Your task to perform on an android device: turn notification dots on Image 0: 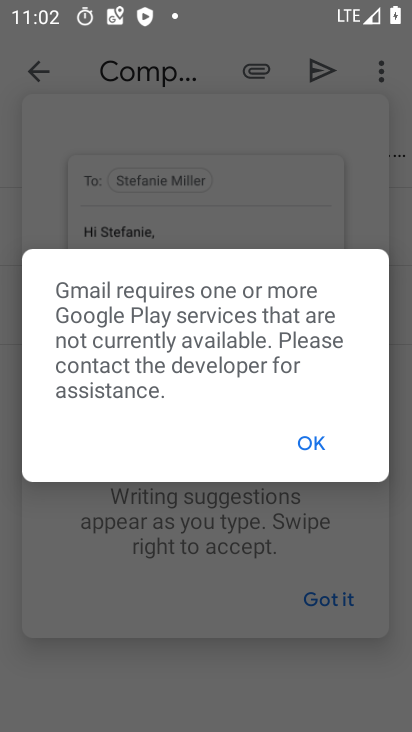
Step 0: press home button
Your task to perform on an android device: turn notification dots on Image 1: 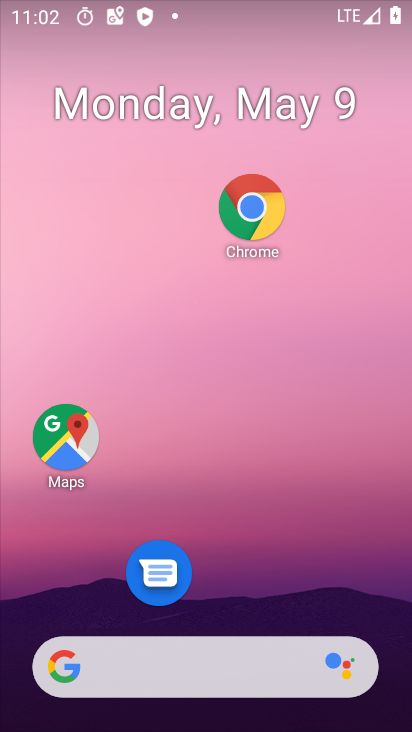
Step 1: drag from (315, 608) to (277, 114)
Your task to perform on an android device: turn notification dots on Image 2: 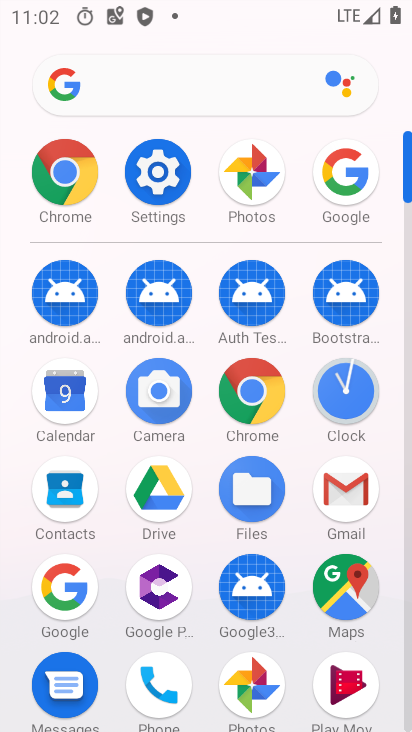
Step 2: click (164, 170)
Your task to perform on an android device: turn notification dots on Image 3: 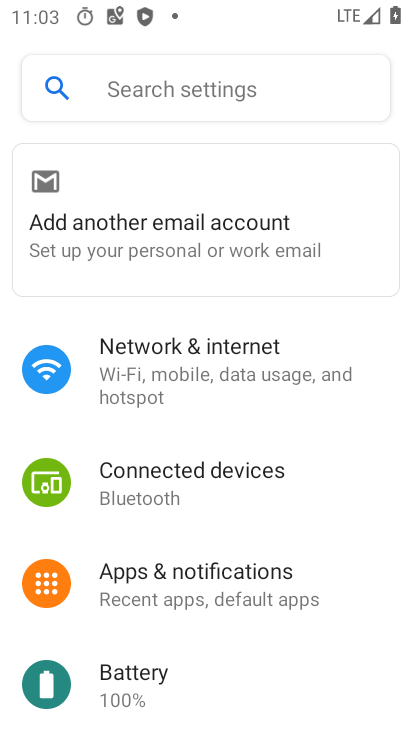
Step 3: drag from (251, 546) to (244, 383)
Your task to perform on an android device: turn notification dots on Image 4: 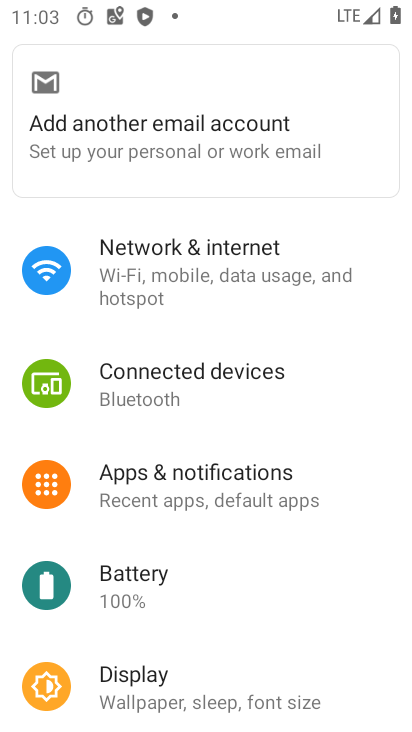
Step 4: click (207, 483)
Your task to perform on an android device: turn notification dots on Image 5: 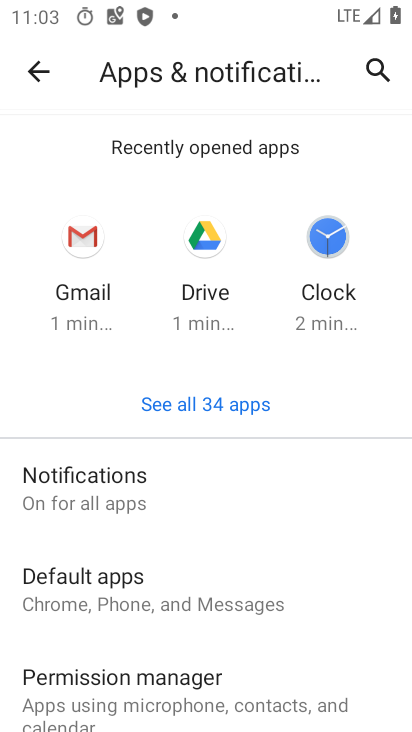
Step 5: drag from (251, 592) to (217, 205)
Your task to perform on an android device: turn notification dots on Image 6: 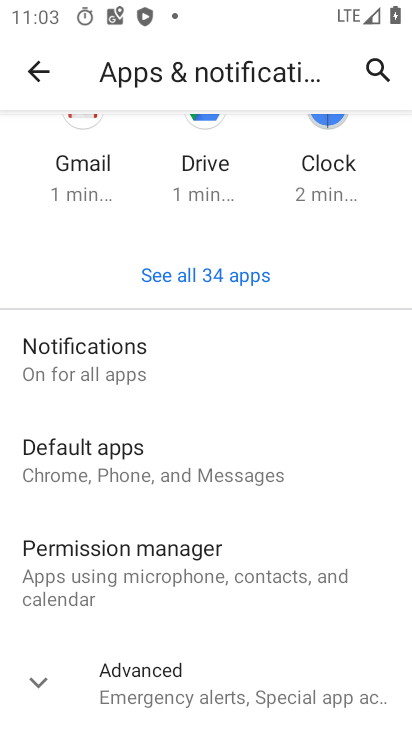
Step 6: click (208, 702)
Your task to perform on an android device: turn notification dots on Image 7: 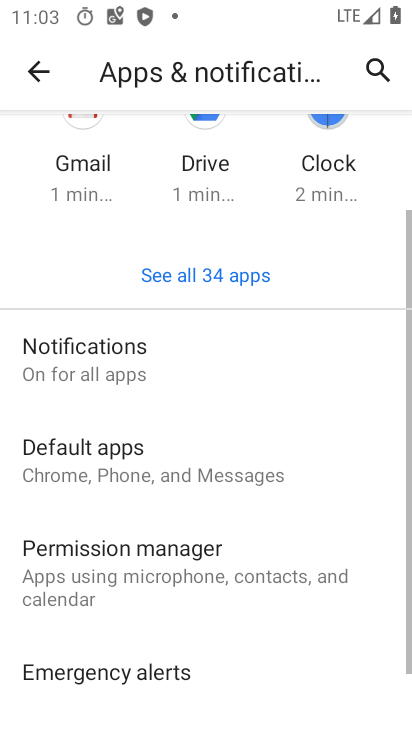
Step 7: drag from (210, 519) to (261, 195)
Your task to perform on an android device: turn notification dots on Image 8: 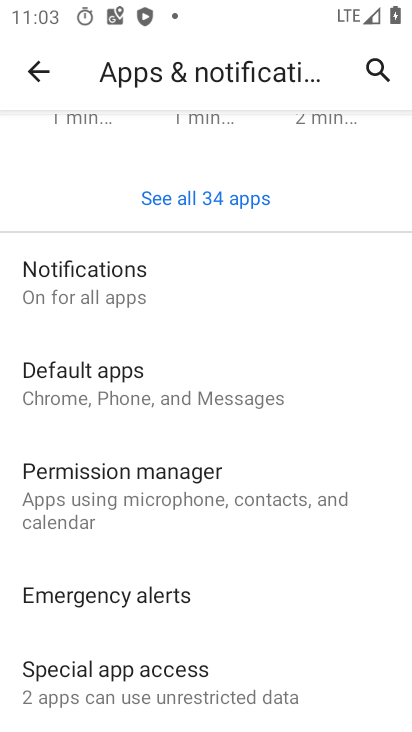
Step 8: click (195, 286)
Your task to perform on an android device: turn notification dots on Image 9: 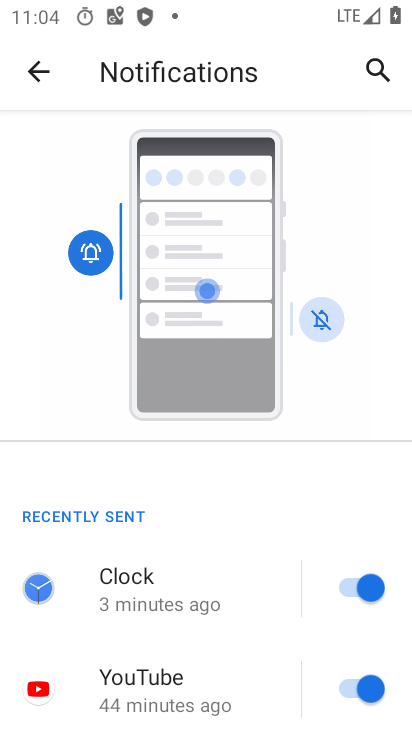
Step 9: drag from (192, 618) to (223, 241)
Your task to perform on an android device: turn notification dots on Image 10: 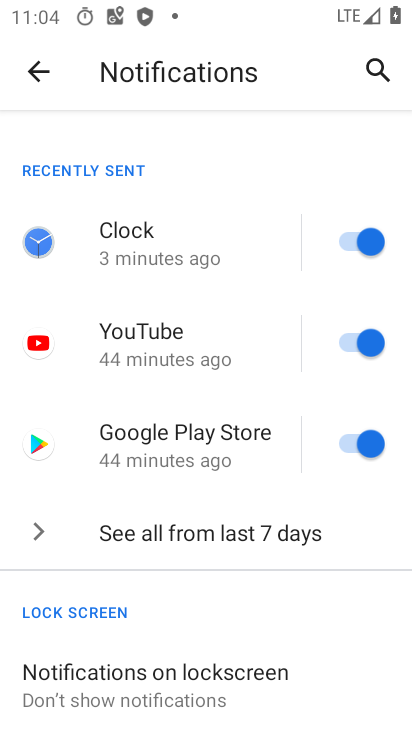
Step 10: click (237, 693)
Your task to perform on an android device: turn notification dots on Image 11: 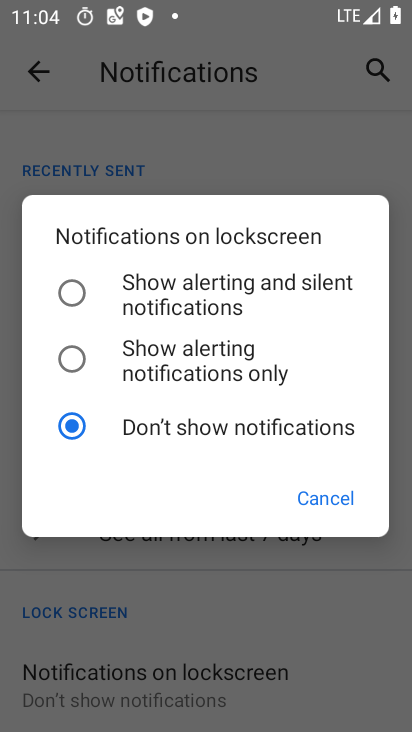
Step 11: click (321, 491)
Your task to perform on an android device: turn notification dots on Image 12: 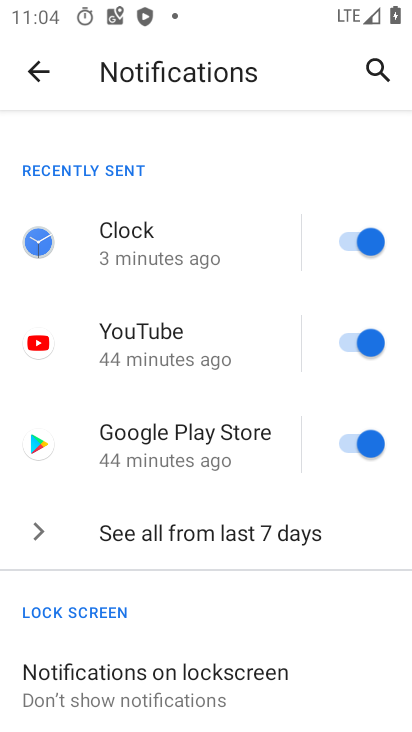
Step 12: drag from (262, 566) to (254, 89)
Your task to perform on an android device: turn notification dots on Image 13: 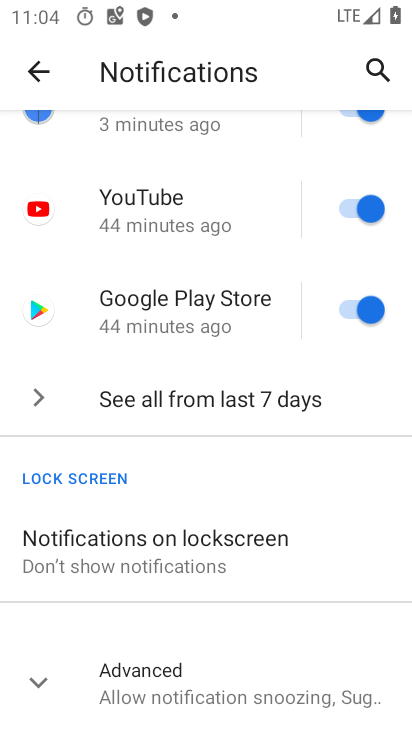
Step 13: click (211, 678)
Your task to perform on an android device: turn notification dots on Image 14: 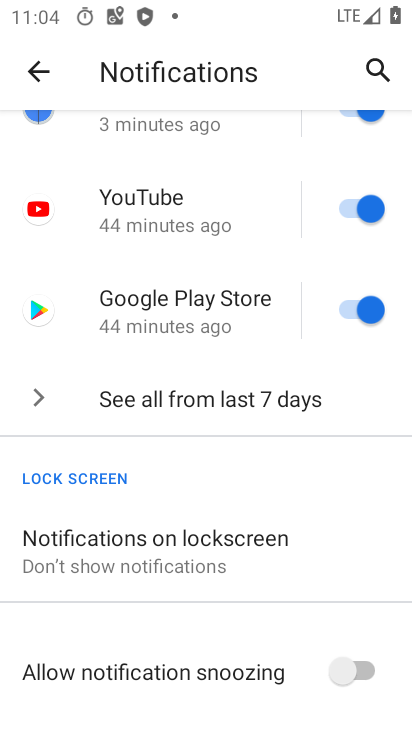
Step 14: drag from (211, 631) to (220, 324)
Your task to perform on an android device: turn notification dots on Image 15: 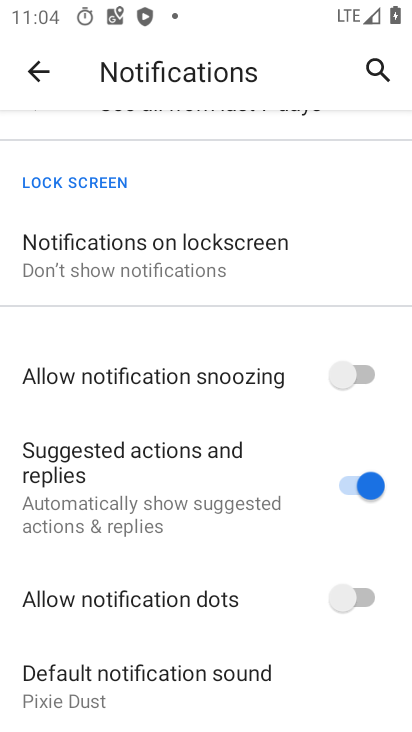
Step 15: click (367, 598)
Your task to perform on an android device: turn notification dots on Image 16: 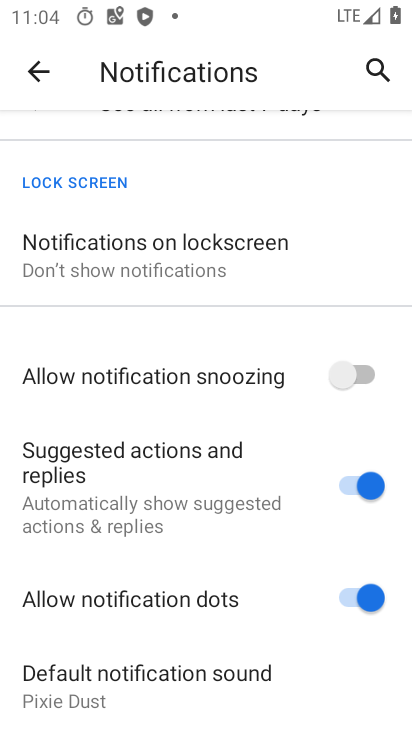
Step 16: task complete